Your task to perform on an android device: Open Google Chrome and open the bookmarks view Image 0: 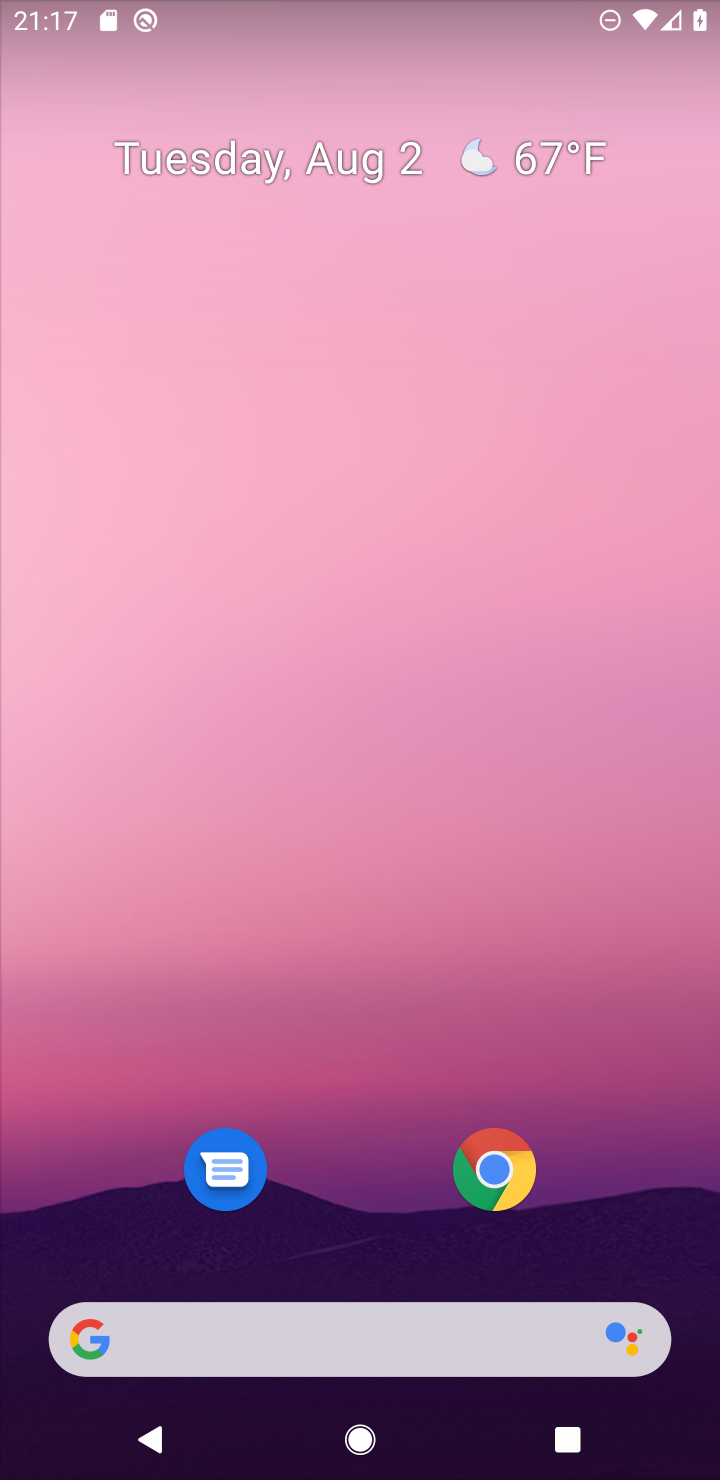
Step 0: click (489, 1170)
Your task to perform on an android device: Open Google Chrome and open the bookmarks view Image 1: 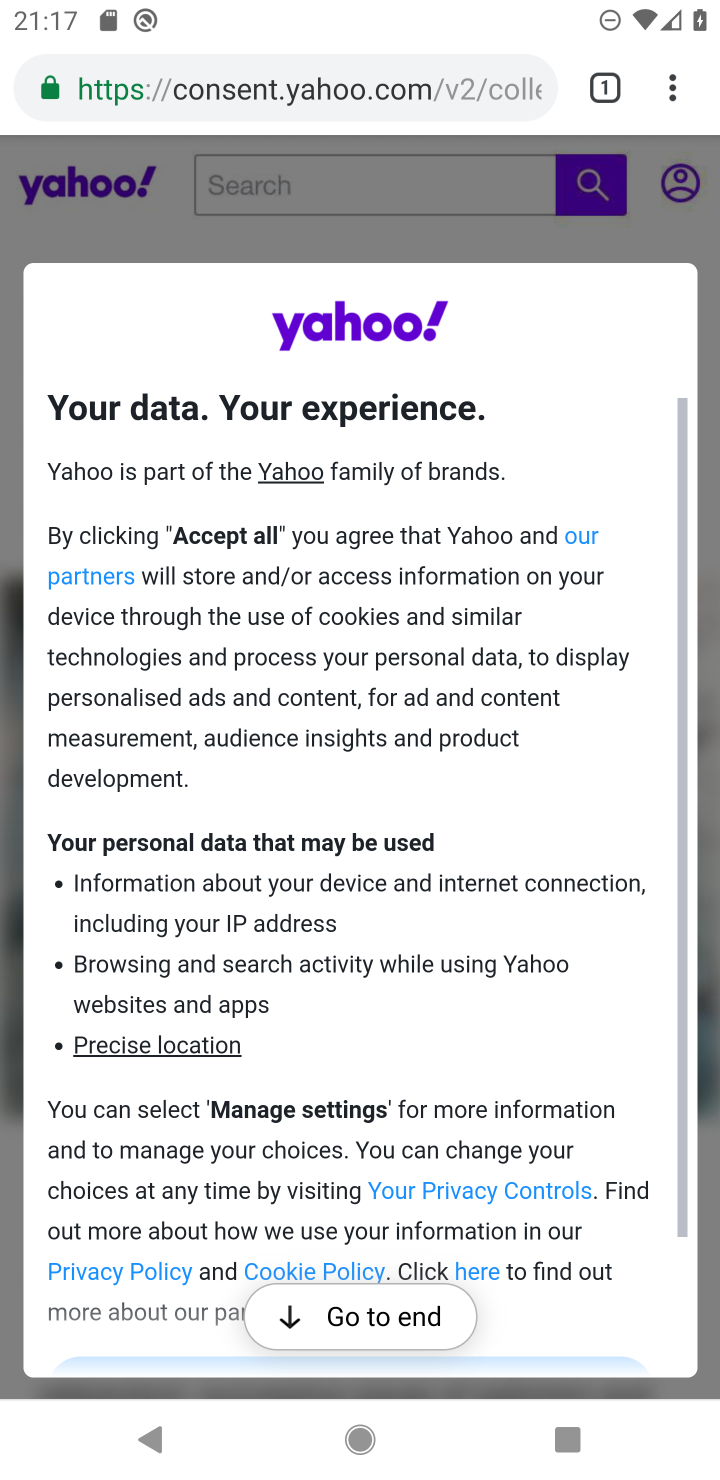
Step 1: click (669, 100)
Your task to perform on an android device: Open Google Chrome and open the bookmarks view Image 2: 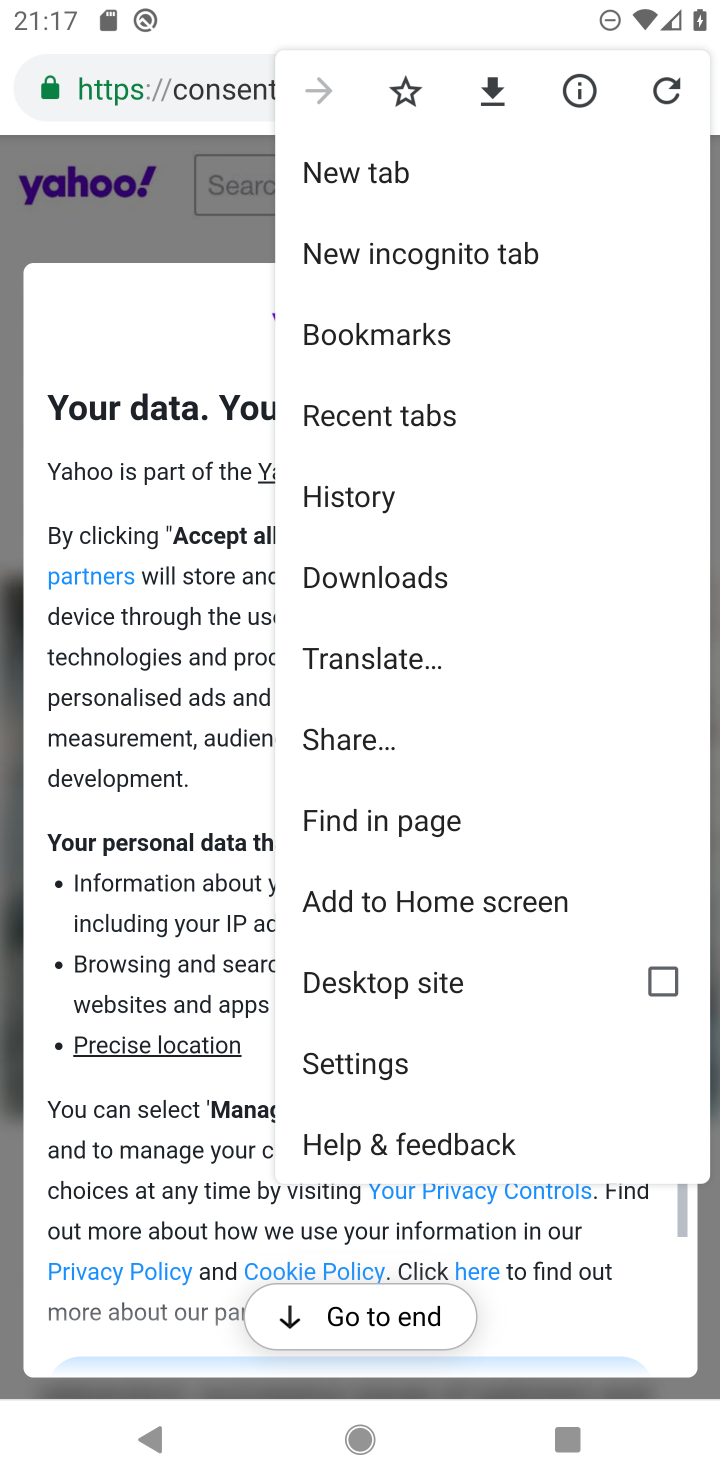
Step 2: click (405, 338)
Your task to perform on an android device: Open Google Chrome and open the bookmarks view Image 3: 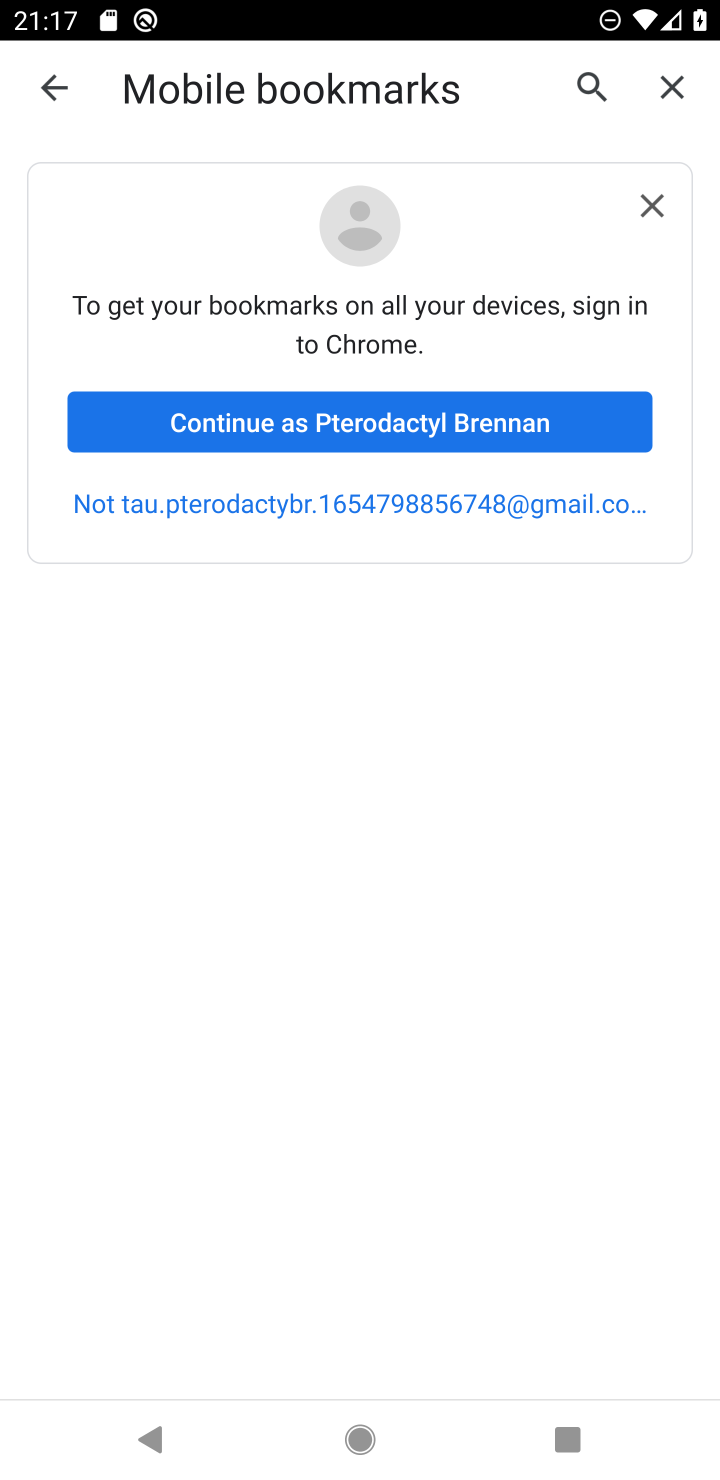
Step 3: task complete